Your task to perform on an android device: stop showing notifications on the lock screen Image 0: 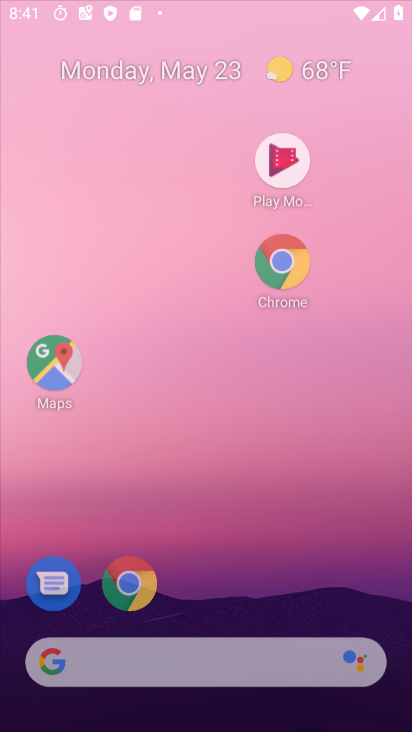
Step 0: click (184, 83)
Your task to perform on an android device: stop showing notifications on the lock screen Image 1: 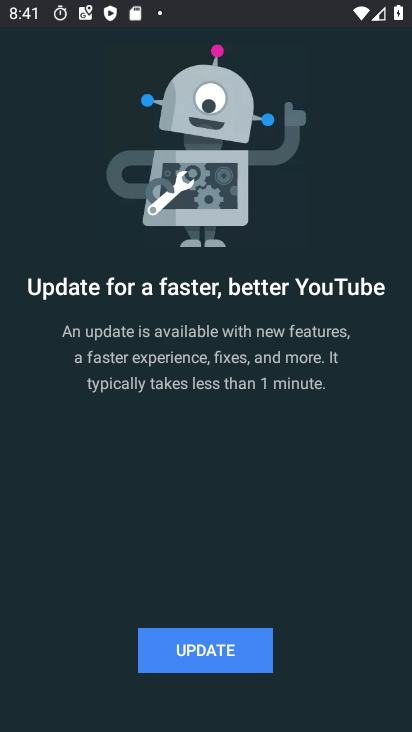
Step 1: press home button
Your task to perform on an android device: stop showing notifications on the lock screen Image 2: 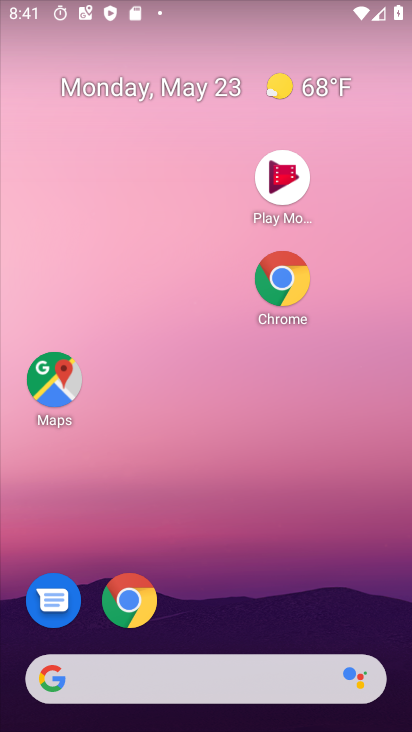
Step 2: drag from (265, 652) to (182, 93)
Your task to perform on an android device: stop showing notifications on the lock screen Image 3: 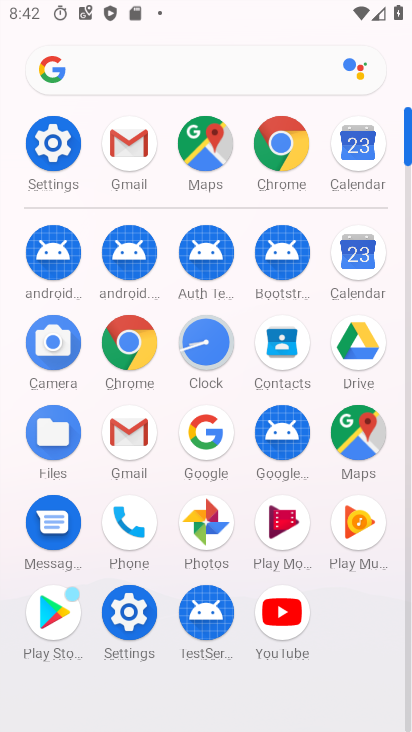
Step 3: drag from (47, 138) to (80, 271)
Your task to perform on an android device: stop showing notifications on the lock screen Image 4: 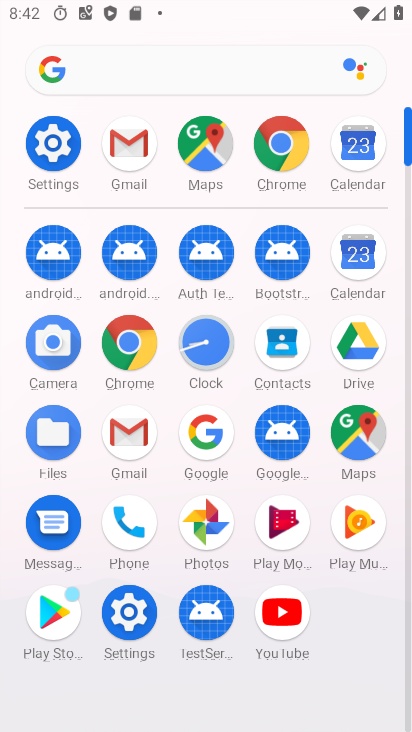
Step 4: click (52, 153)
Your task to perform on an android device: stop showing notifications on the lock screen Image 5: 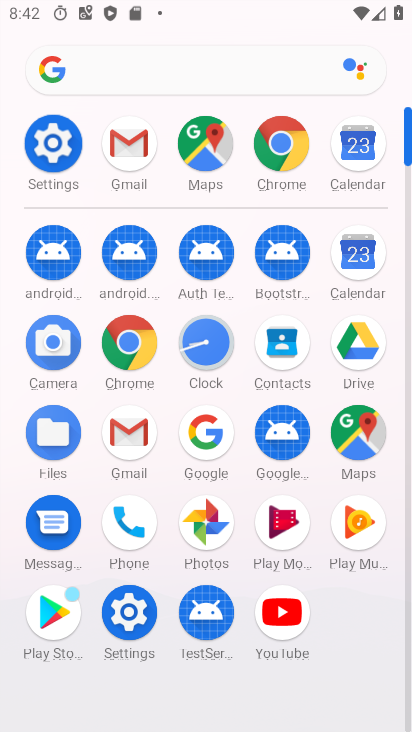
Step 5: click (52, 153)
Your task to perform on an android device: stop showing notifications on the lock screen Image 6: 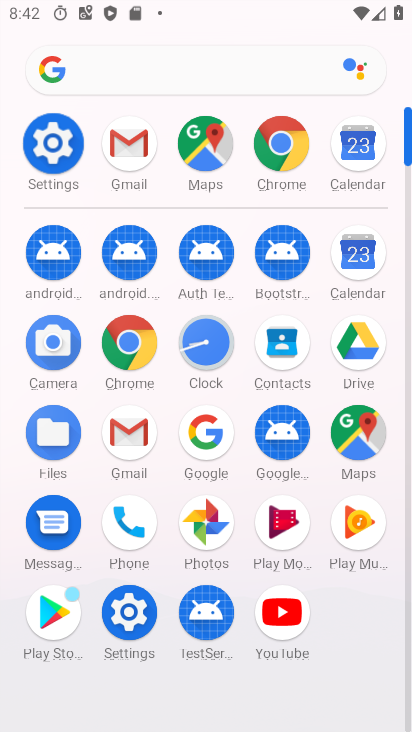
Step 6: click (63, 153)
Your task to perform on an android device: stop showing notifications on the lock screen Image 7: 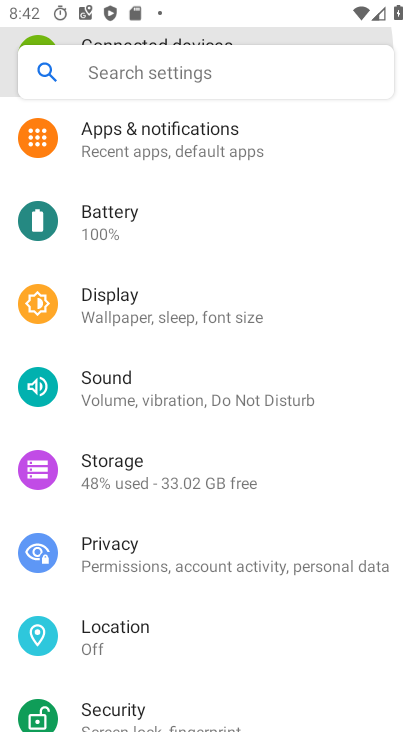
Step 7: click (66, 153)
Your task to perform on an android device: stop showing notifications on the lock screen Image 8: 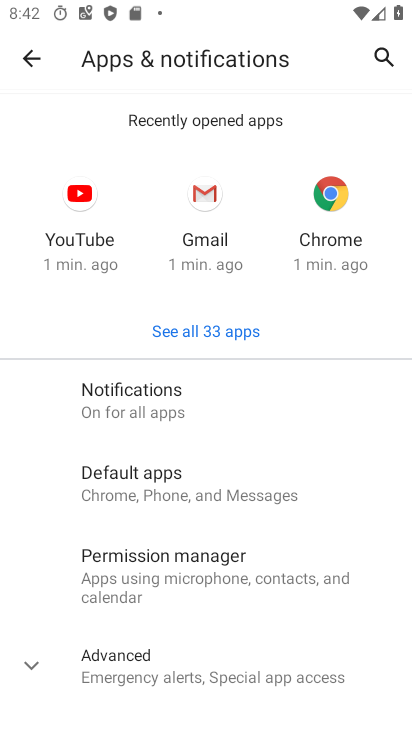
Step 8: click (109, 398)
Your task to perform on an android device: stop showing notifications on the lock screen Image 9: 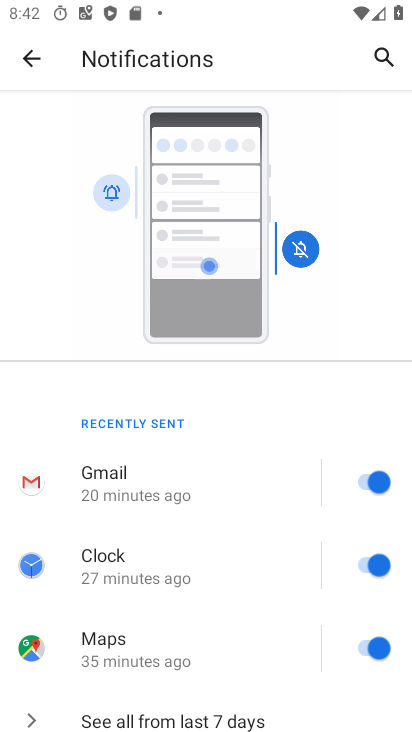
Step 9: drag from (146, 563) to (77, 266)
Your task to perform on an android device: stop showing notifications on the lock screen Image 10: 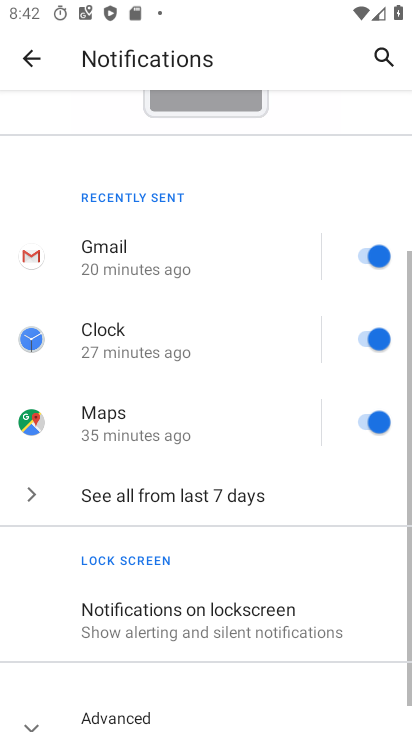
Step 10: drag from (193, 502) to (164, 211)
Your task to perform on an android device: stop showing notifications on the lock screen Image 11: 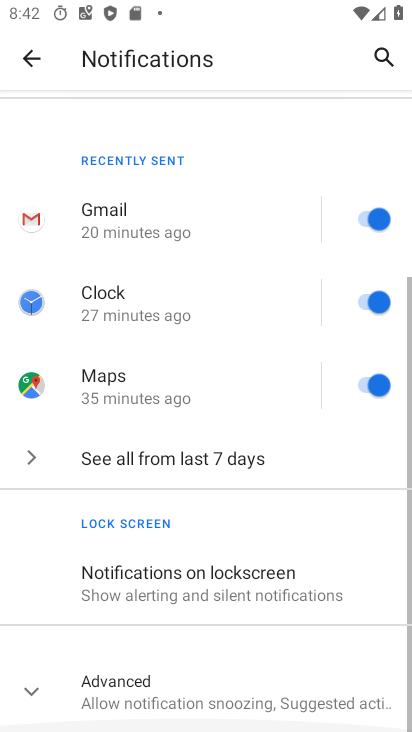
Step 11: drag from (244, 514) to (230, 185)
Your task to perform on an android device: stop showing notifications on the lock screen Image 12: 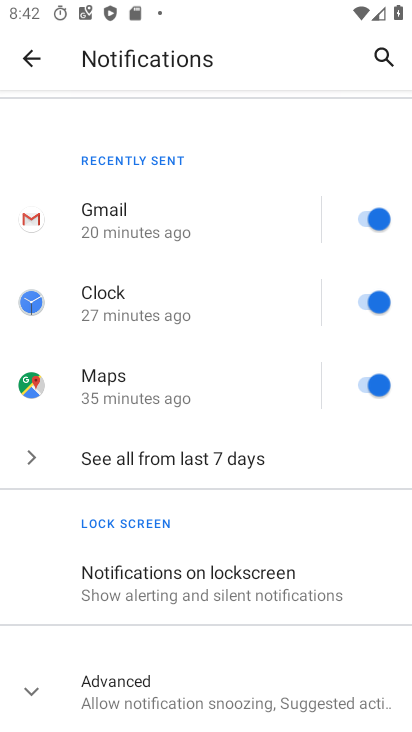
Step 12: click (176, 583)
Your task to perform on an android device: stop showing notifications on the lock screen Image 13: 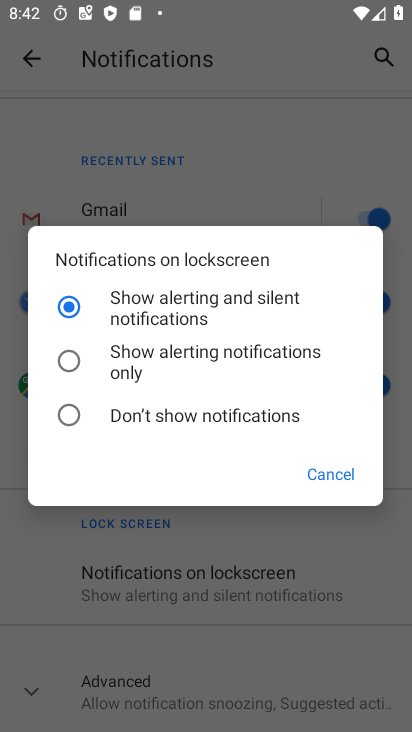
Step 13: click (65, 407)
Your task to perform on an android device: stop showing notifications on the lock screen Image 14: 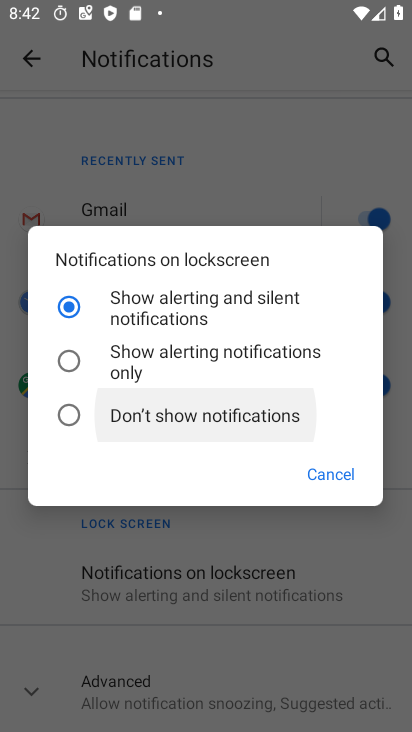
Step 14: click (65, 407)
Your task to perform on an android device: stop showing notifications on the lock screen Image 15: 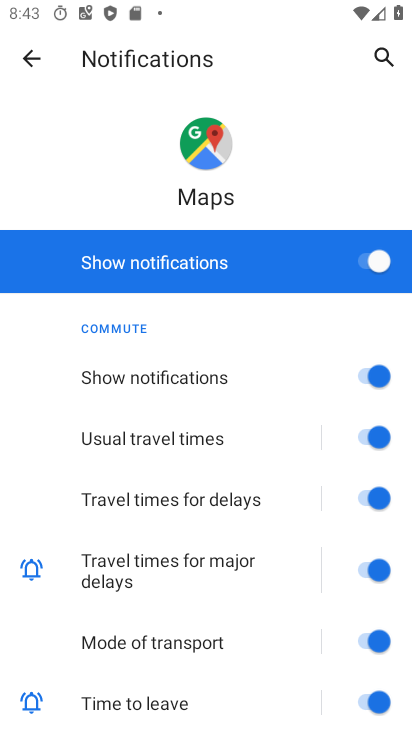
Step 15: task complete